Your task to perform on an android device: Show me recent news Image 0: 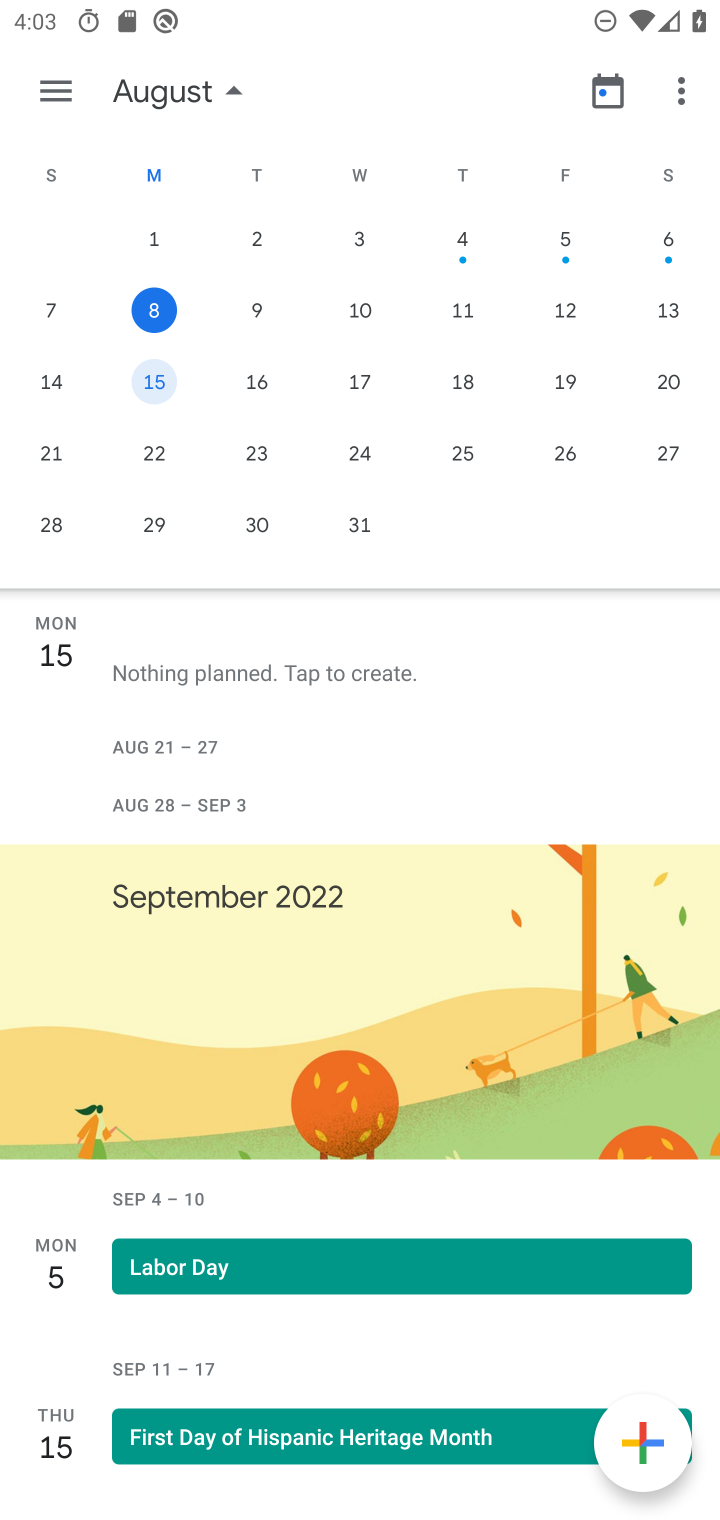
Step 0: press back button
Your task to perform on an android device: Show me recent news Image 1: 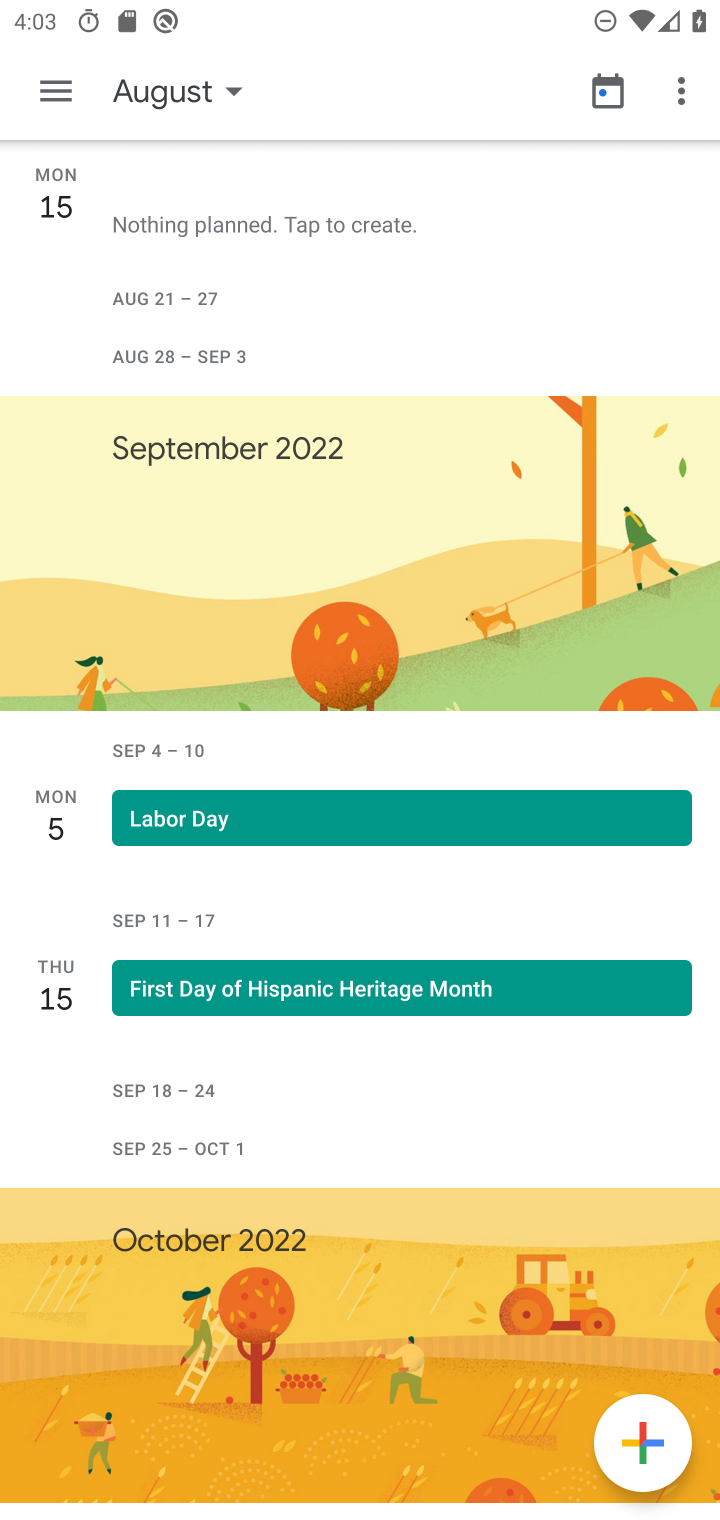
Step 1: press back button
Your task to perform on an android device: Show me recent news Image 2: 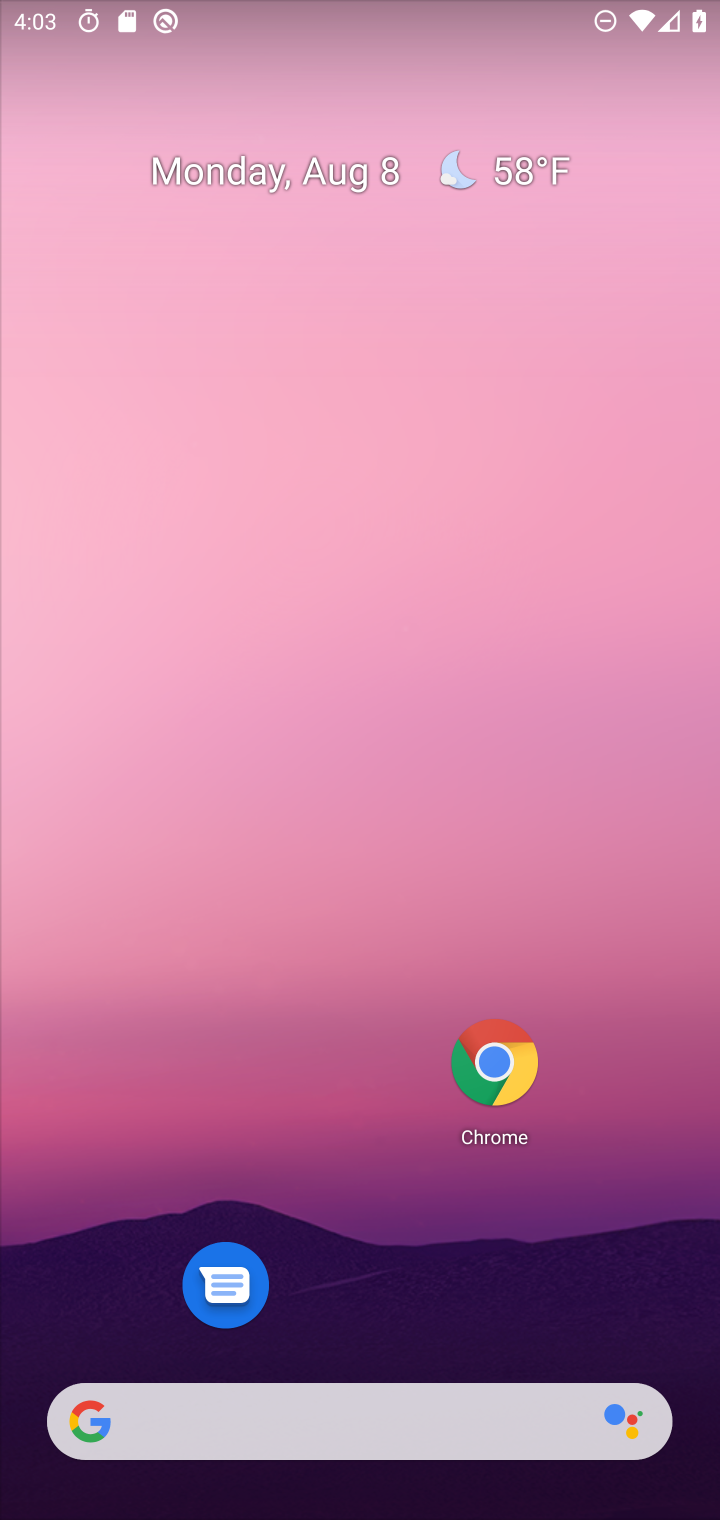
Step 2: click (361, 1422)
Your task to perform on an android device: Show me recent news Image 3: 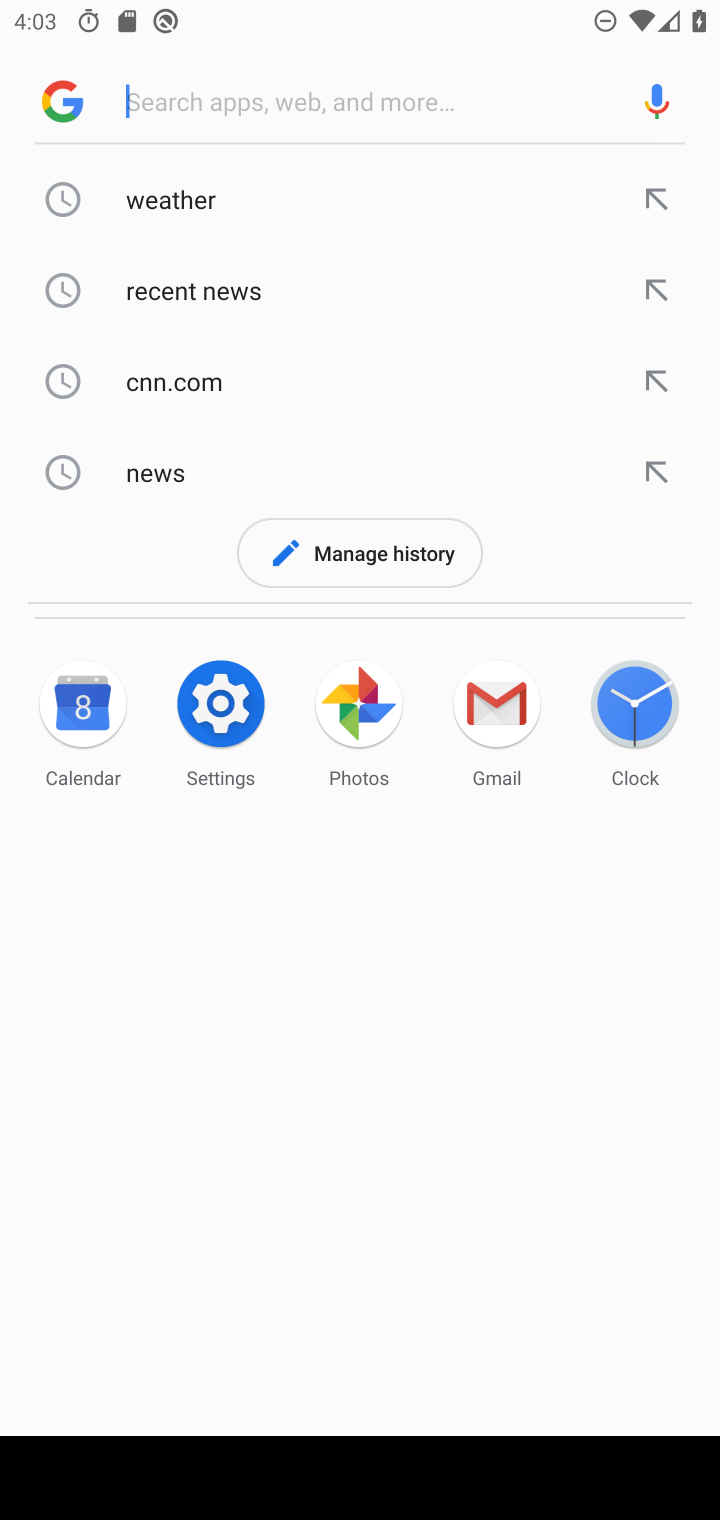
Step 3: click (231, 297)
Your task to perform on an android device: Show me recent news Image 4: 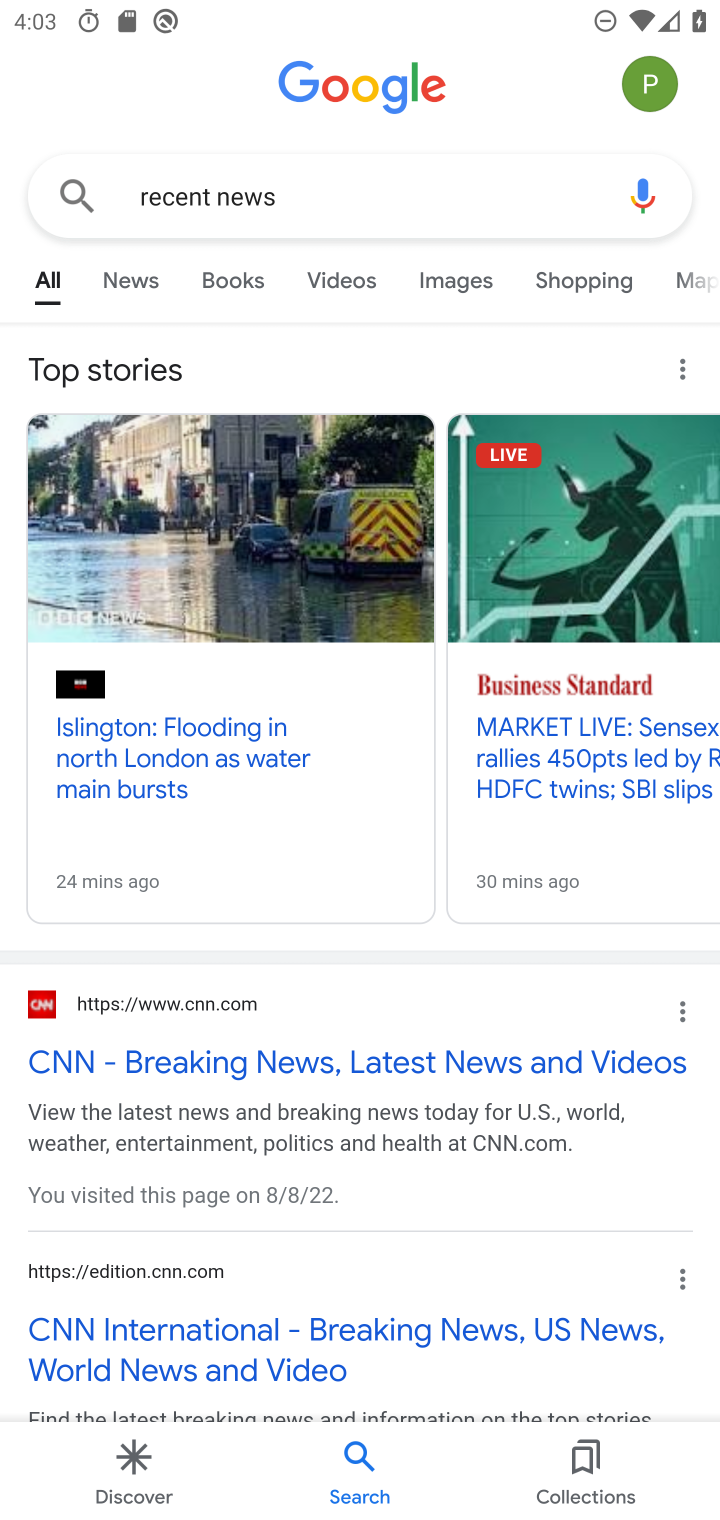
Step 4: task complete